Your task to perform on an android device: find photos in the google photos app Image 0: 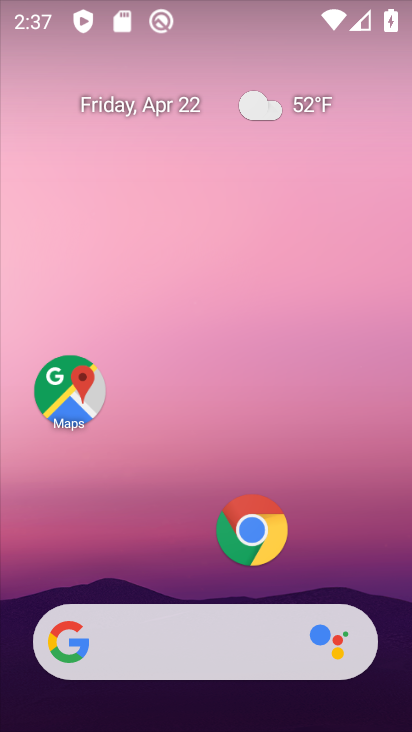
Step 0: drag from (229, 623) to (249, 12)
Your task to perform on an android device: find photos in the google photos app Image 1: 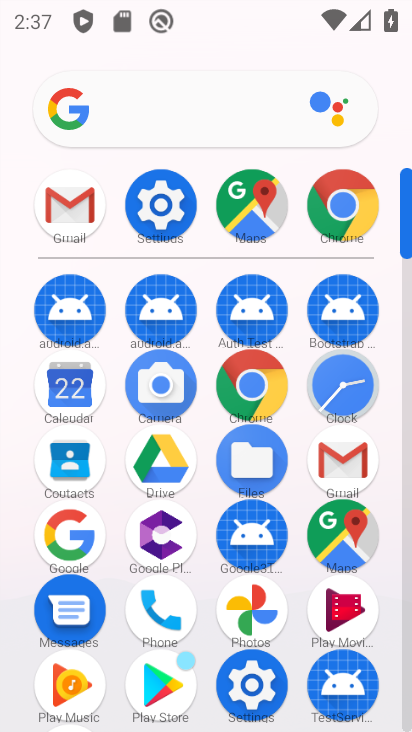
Step 1: click (239, 603)
Your task to perform on an android device: find photos in the google photos app Image 2: 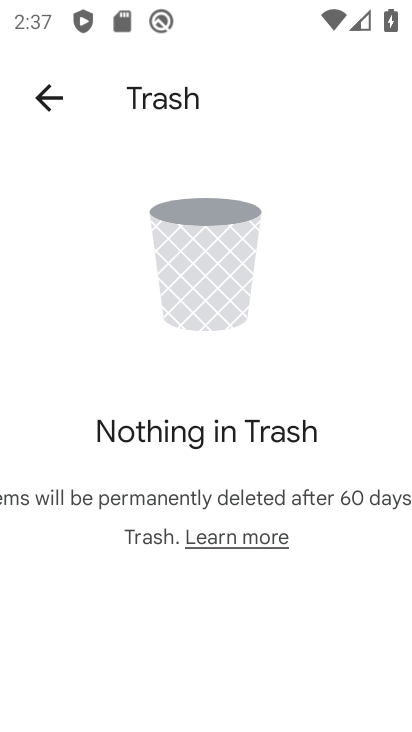
Step 2: click (53, 110)
Your task to perform on an android device: find photos in the google photos app Image 3: 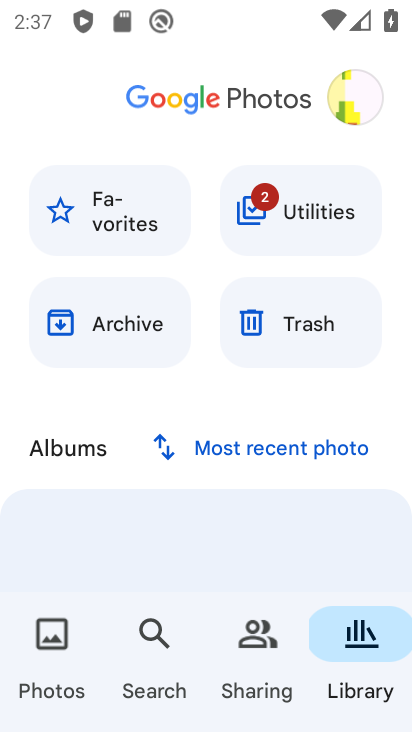
Step 3: click (59, 637)
Your task to perform on an android device: find photos in the google photos app Image 4: 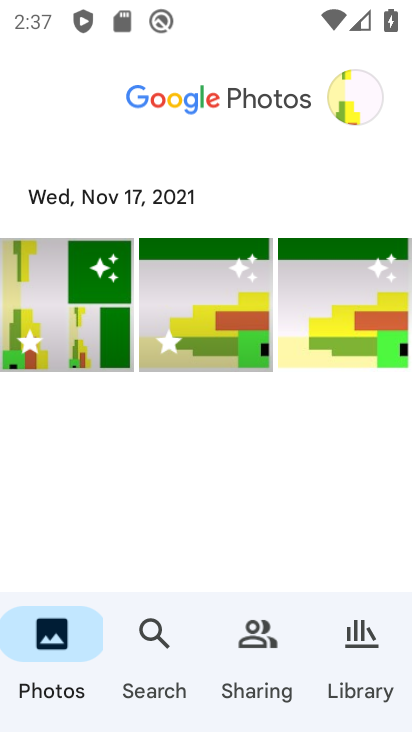
Step 4: task complete